Your task to perform on an android device: Go to Amazon Image 0: 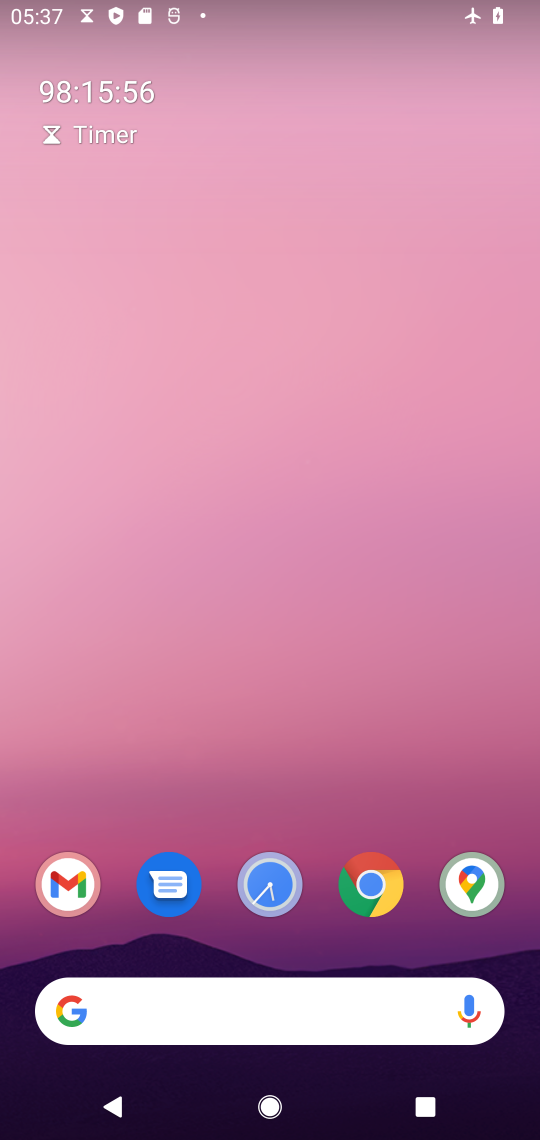
Step 0: drag from (297, 864) to (413, 285)
Your task to perform on an android device: Go to Amazon Image 1: 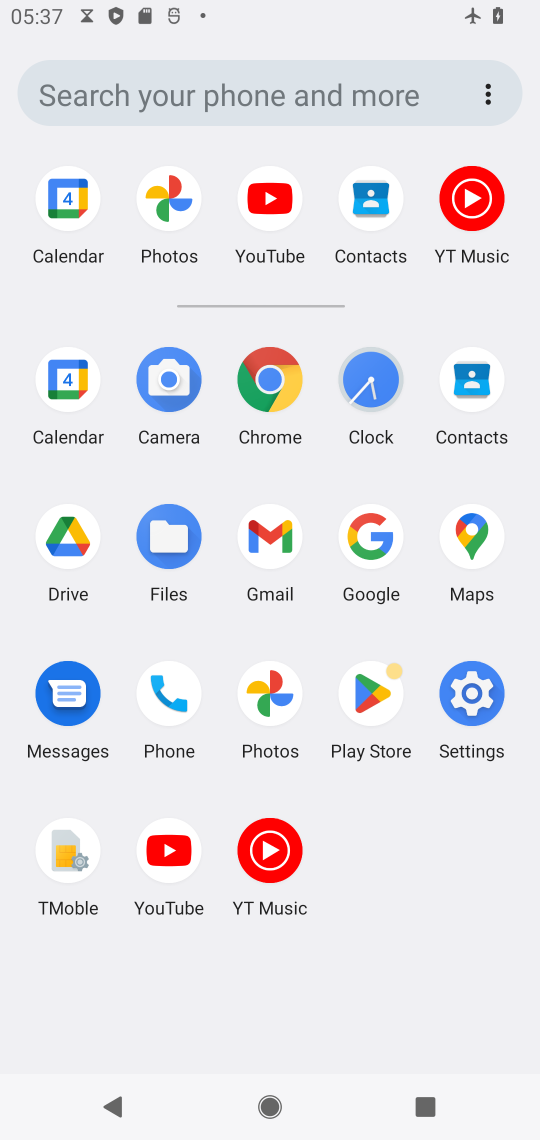
Step 1: click (290, 378)
Your task to perform on an android device: Go to Amazon Image 2: 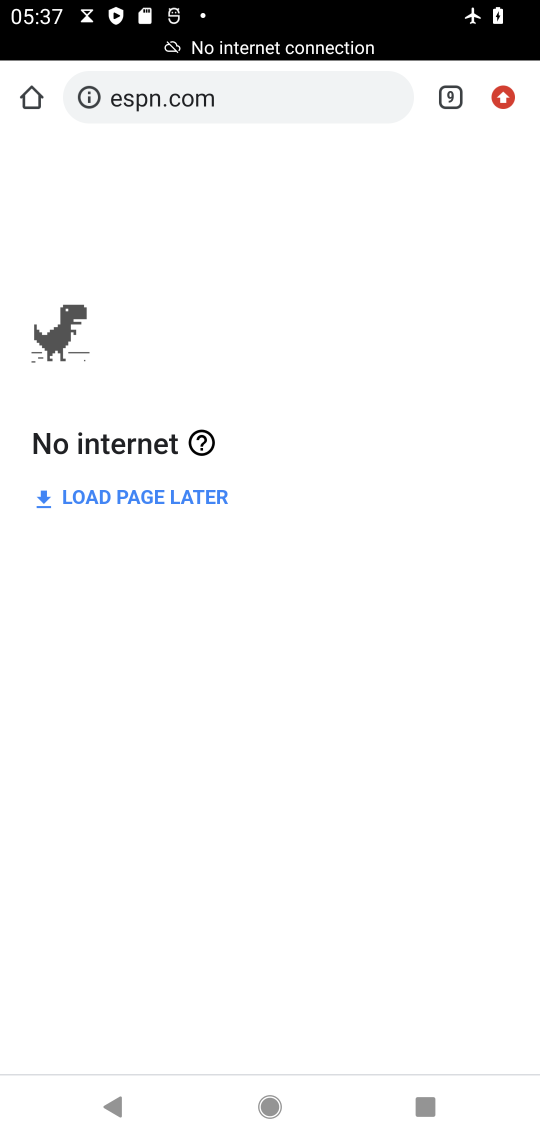
Step 2: click (533, 83)
Your task to perform on an android device: Go to Amazon Image 3: 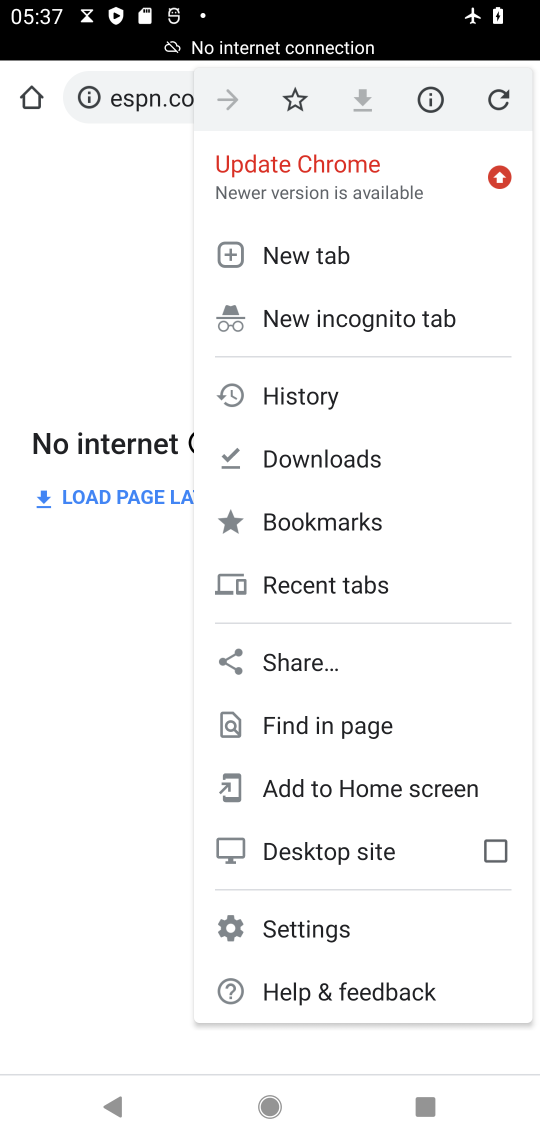
Step 3: click (314, 255)
Your task to perform on an android device: Go to Amazon Image 4: 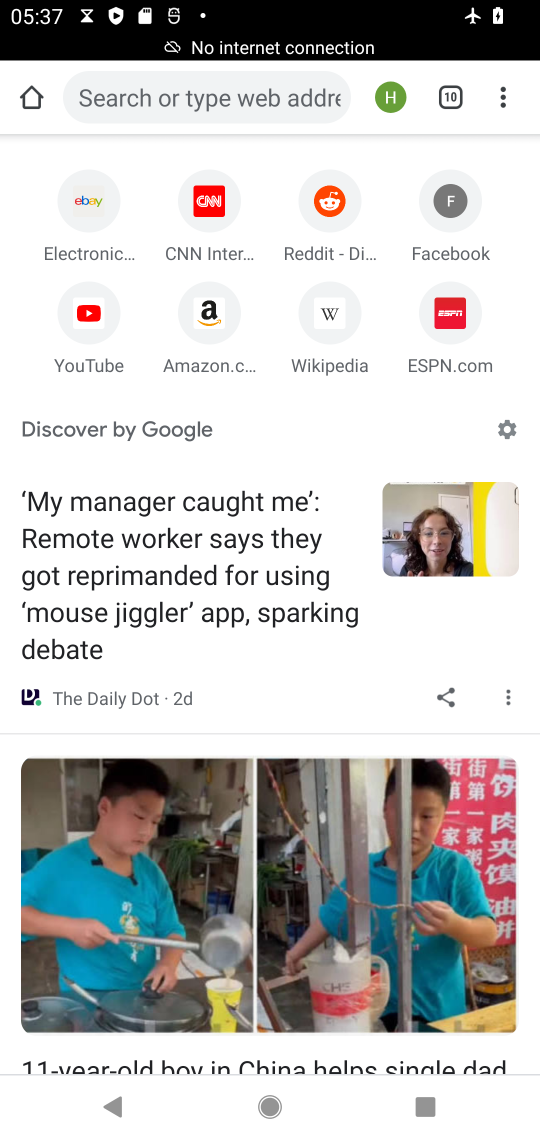
Step 4: click (215, 319)
Your task to perform on an android device: Go to Amazon Image 5: 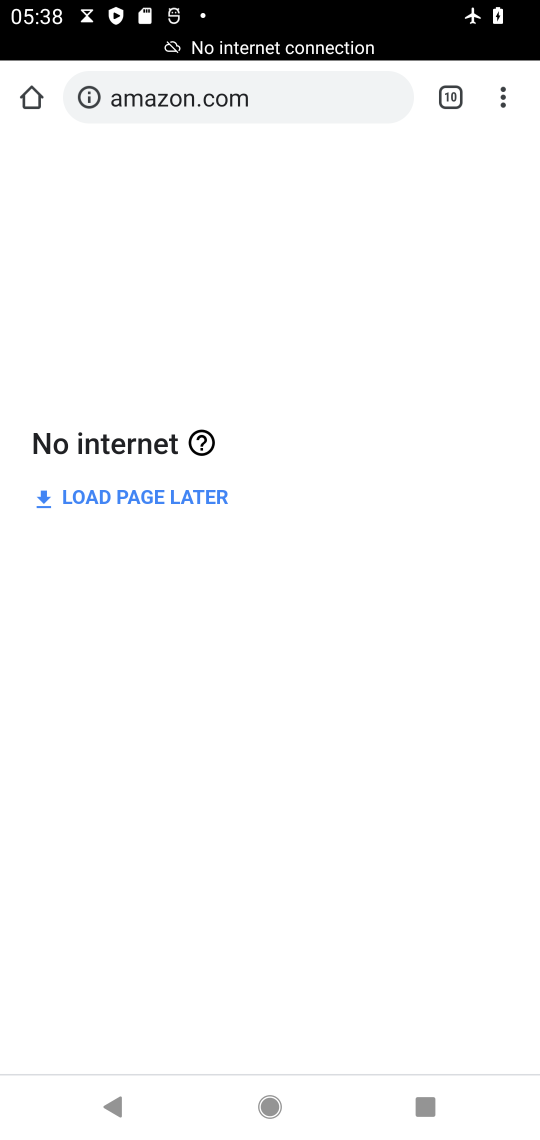
Step 5: task complete